Your task to perform on an android device: change the clock display to analog Image 0: 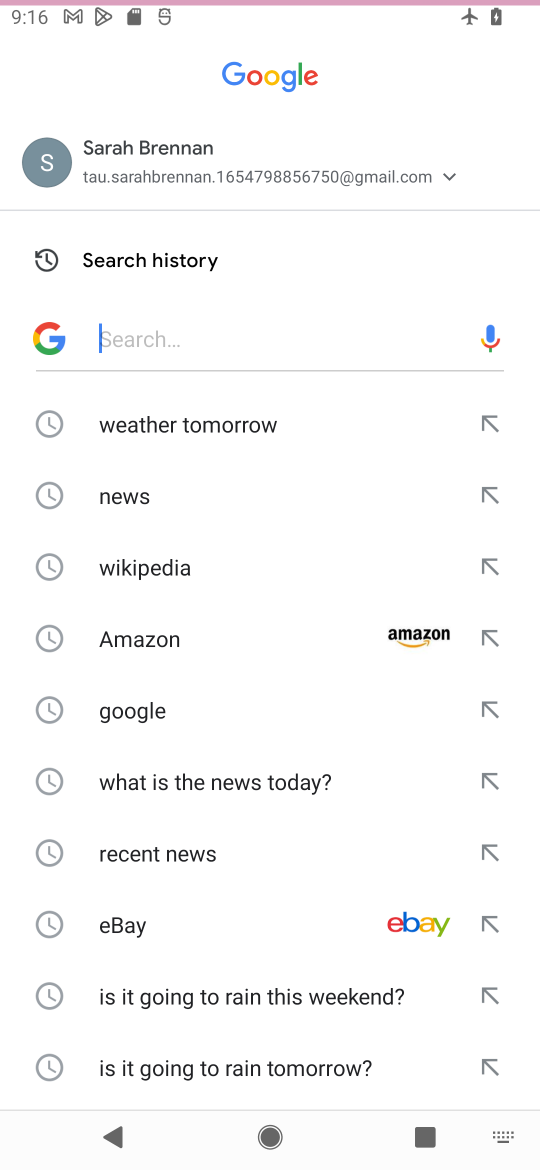
Step 0: press home button
Your task to perform on an android device: change the clock display to analog Image 1: 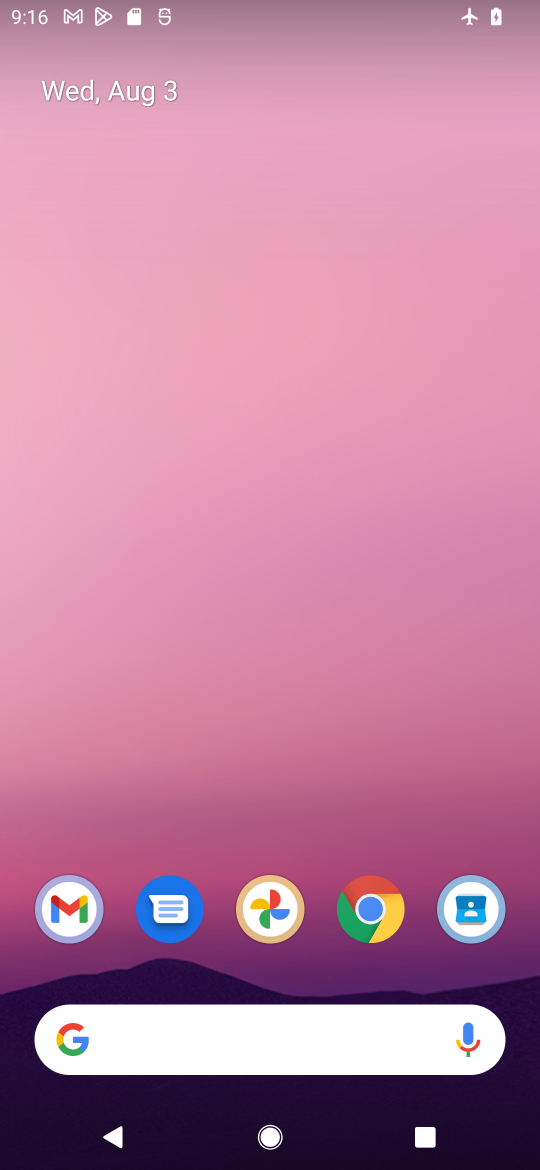
Step 1: drag from (438, 818) to (457, 407)
Your task to perform on an android device: change the clock display to analog Image 2: 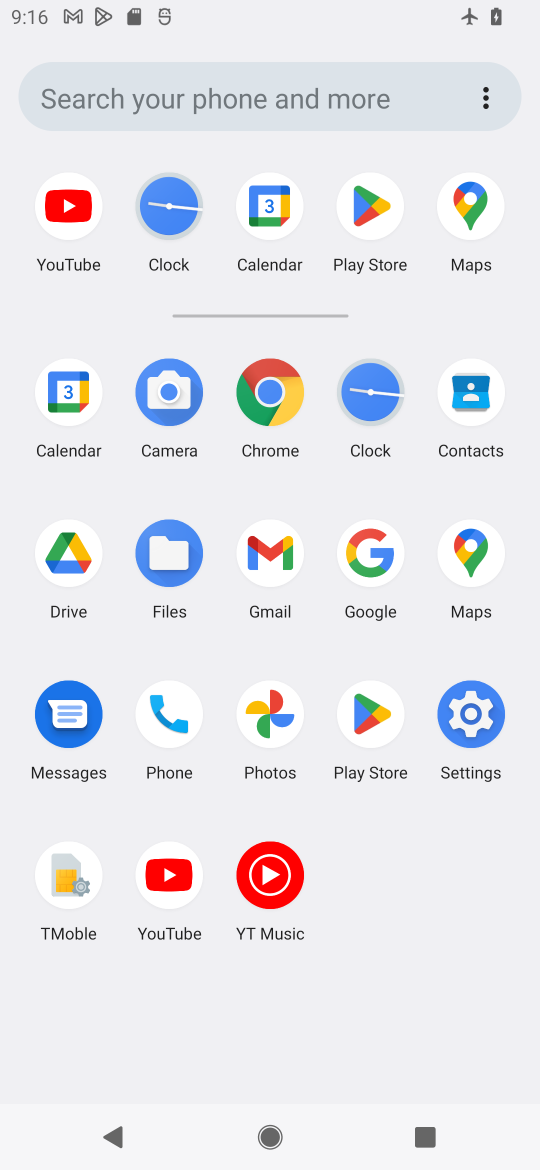
Step 2: click (366, 397)
Your task to perform on an android device: change the clock display to analog Image 3: 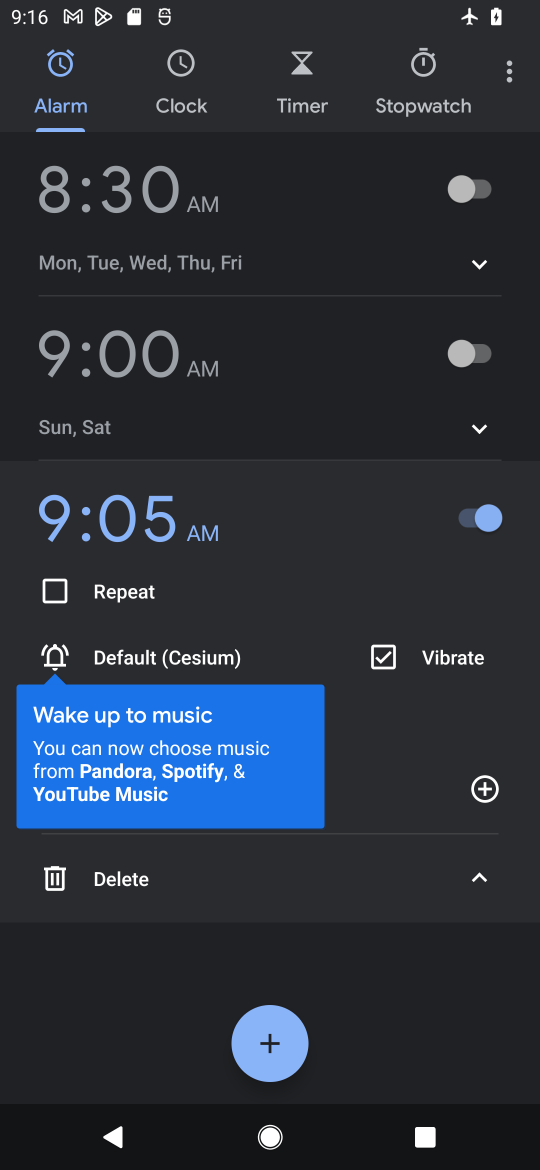
Step 3: click (508, 72)
Your task to perform on an android device: change the clock display to analog Image 4: 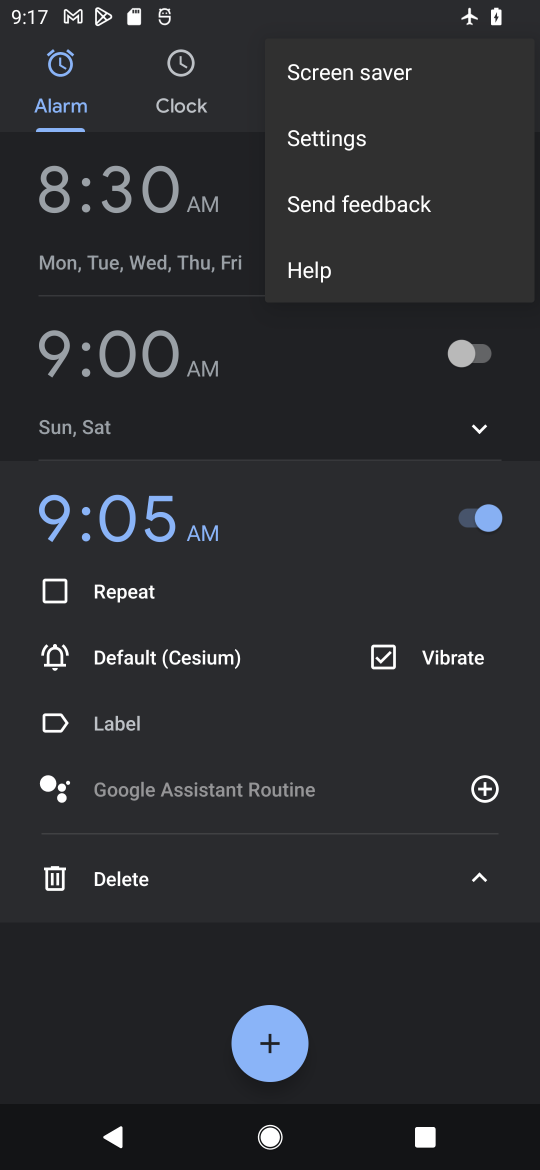
Step 4: click (347, 139)
Your task to perform on an android device: change the clock display to analog Image 5: 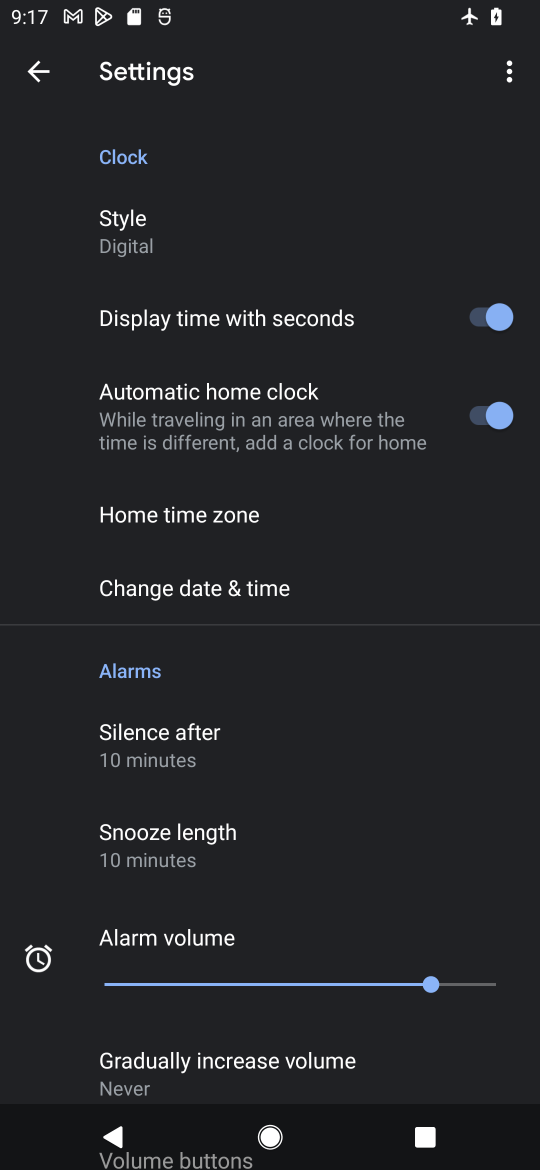
Step 5: drag from (369, 734) to (397, 587)
Your task to perform on an android device: change the clock display to analog Image 6: 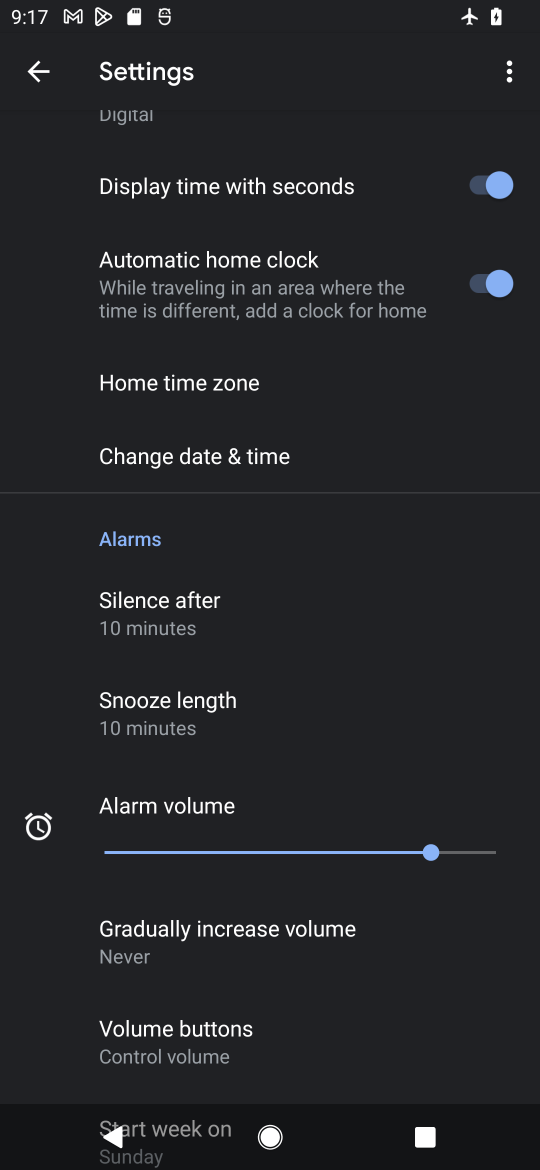
Step 6: drag from (378, 813) to (394, 639)
Your task to perform on an android device: change the clock display to analog Image 7: 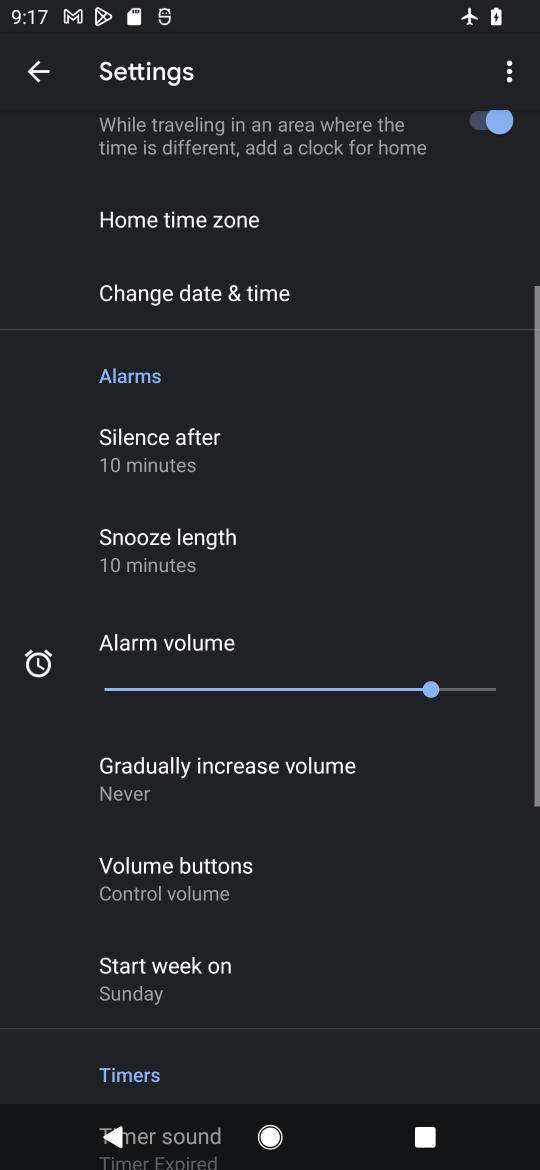
Step 7: drag from (389, 843) to (402, 681)
Your task to perform on an android device: change the clock display to analog Image 8: 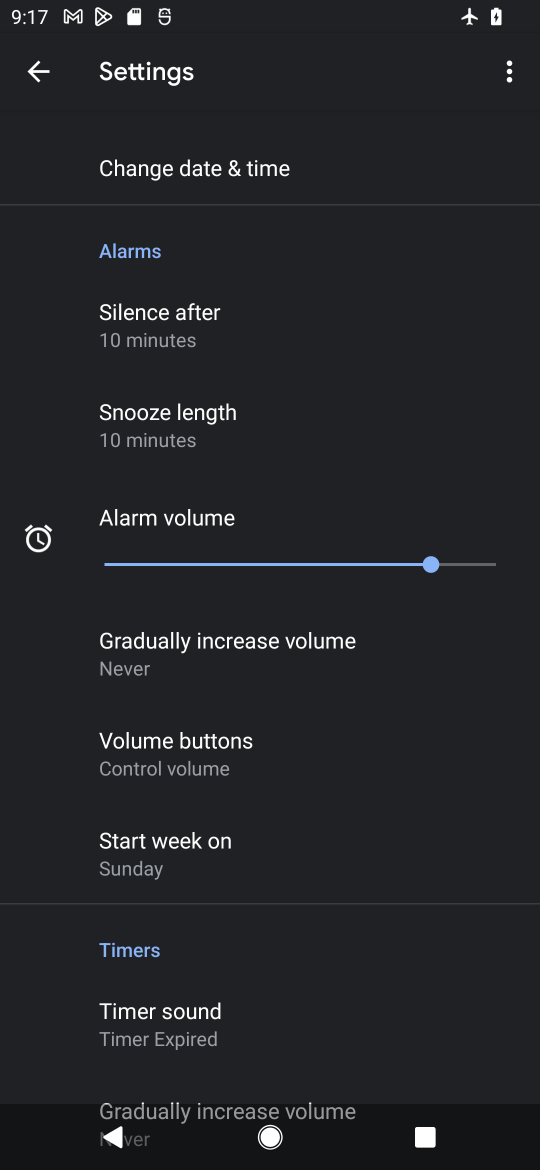
Step 8: drag from (379, 860) to (385, 670)
Your task to perform on an android device: change the clock display to analog Image 9: 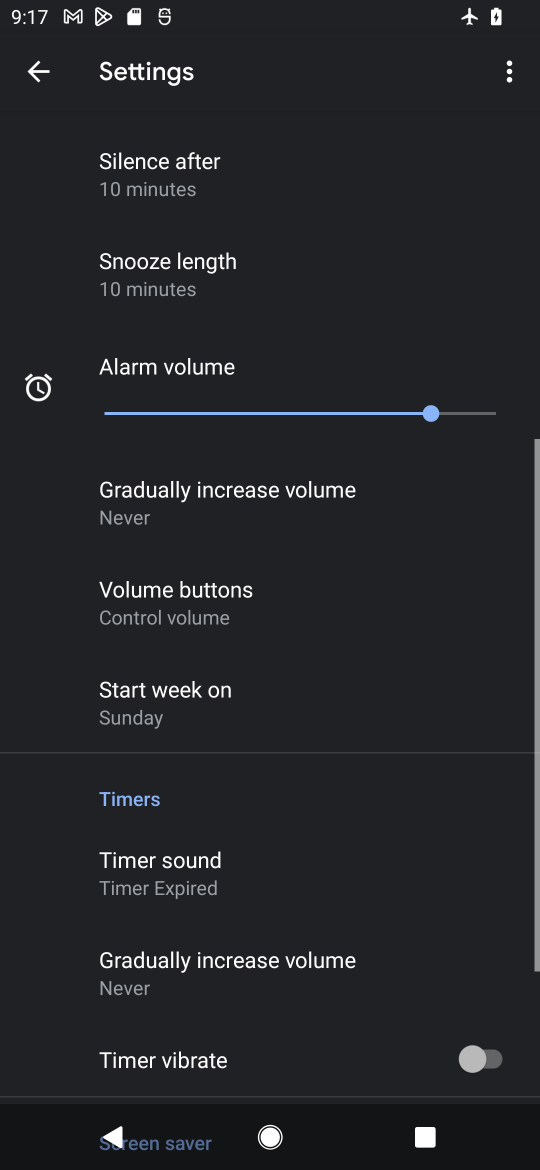
Step 9: drag from (422, 482) to (431, 633)
Your task to perform on an android device: change the clock display to analog Image 10: 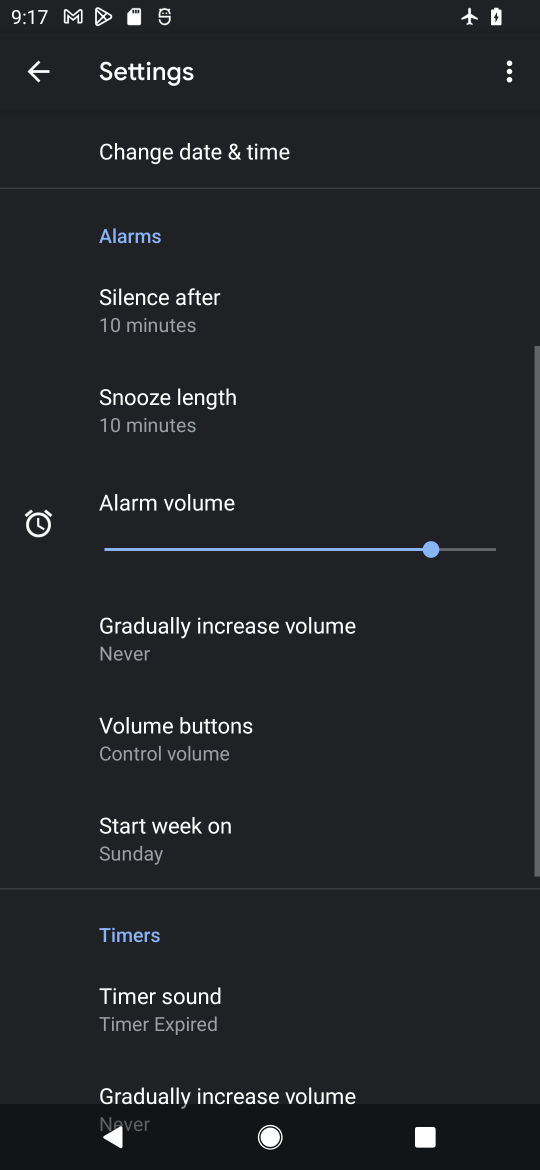
Step 10: drag from (475, 379) to (486, 568)
Your task to perform on an android device: change the clock display to analog Image 11: 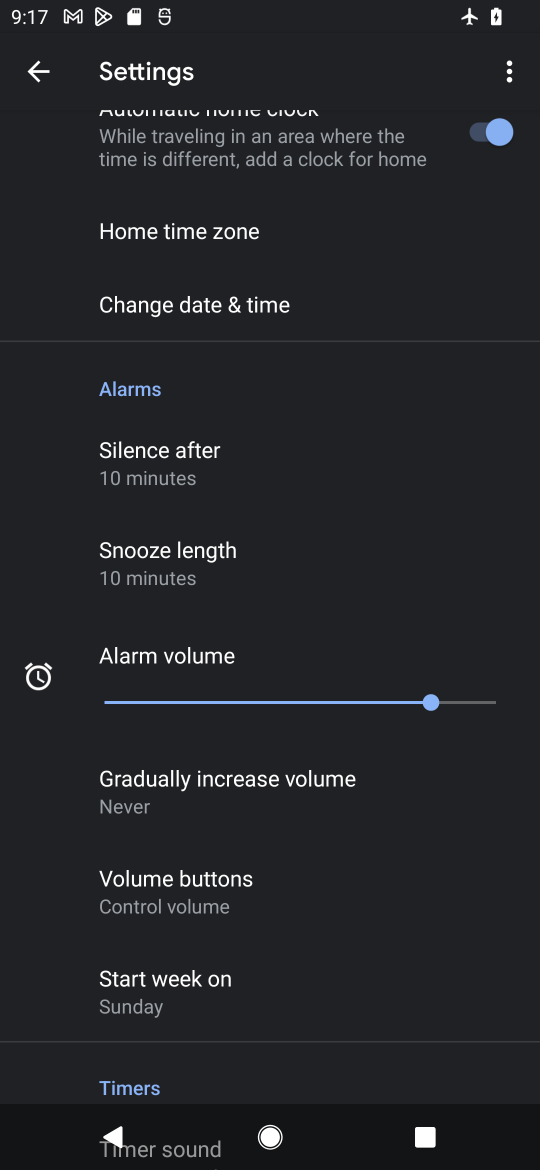
Step 11: drag from (455, 339) to (459, 579)
Your task to perform on an android device: change the clock display to analog Image 12: 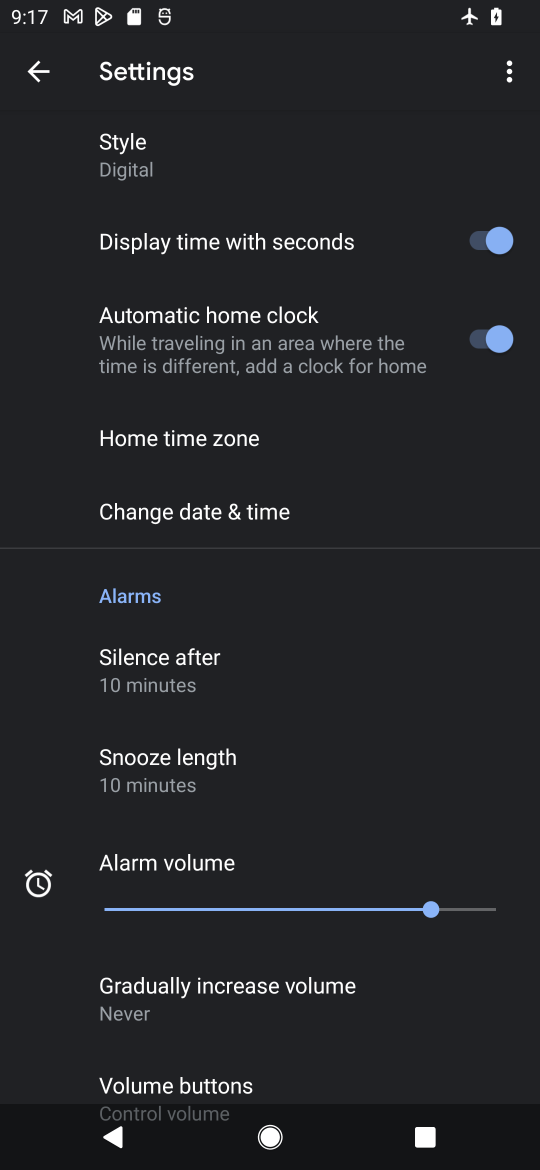
Step 12: drag from (369, 209) to (382, 516)
Your task to perform on an android device: change the clock display to analog Image 13: 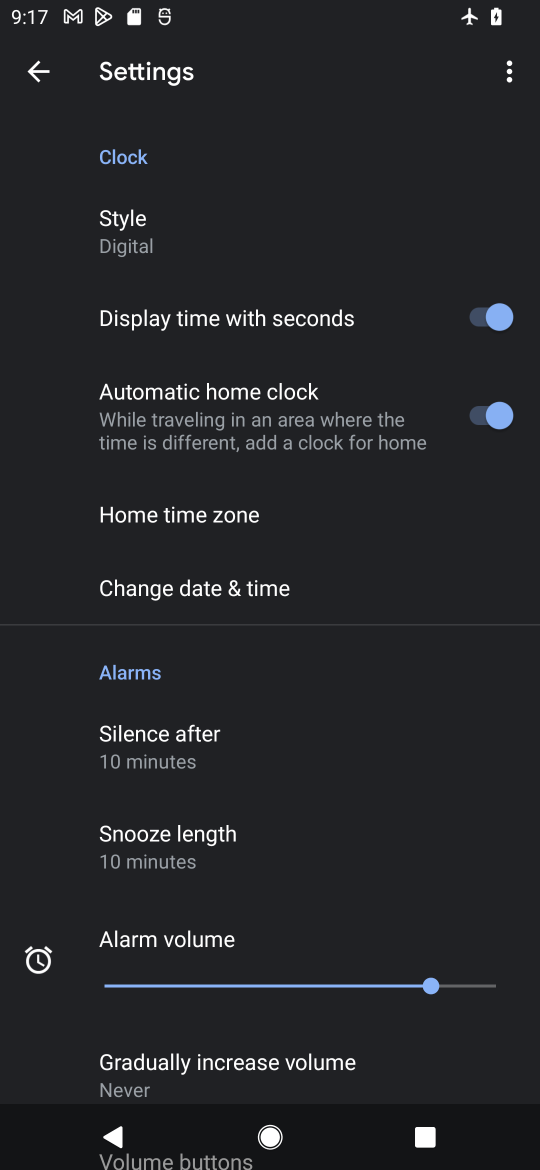
Step 13: click (136, 245)
Your task to perform on an android device: change the clock display to analog Image 14: 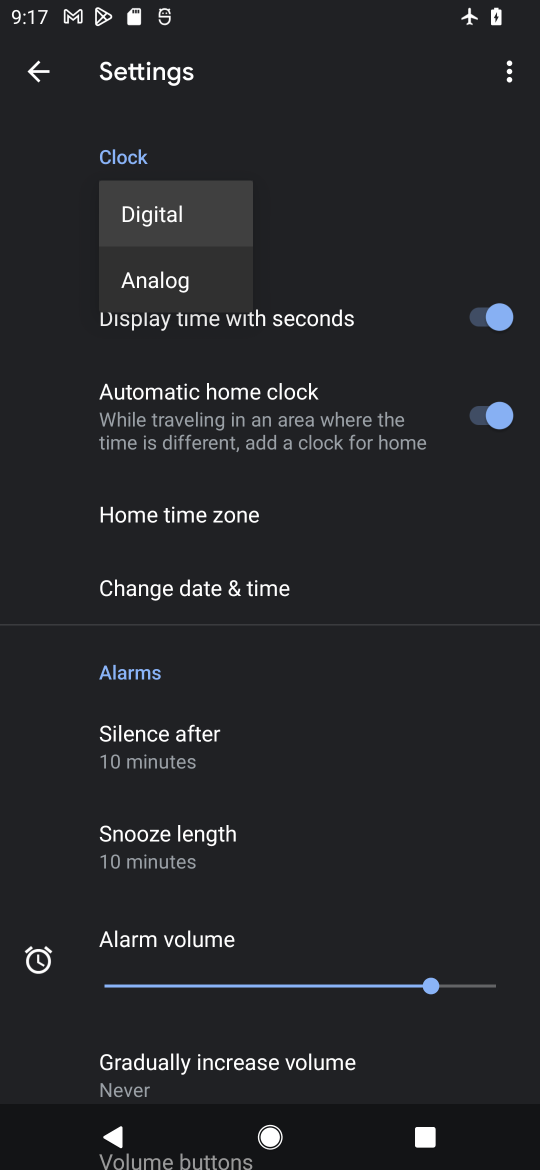
Step 14: click (162, 281)
Your task to perform on an android device: change the clock display to analog Image 15: 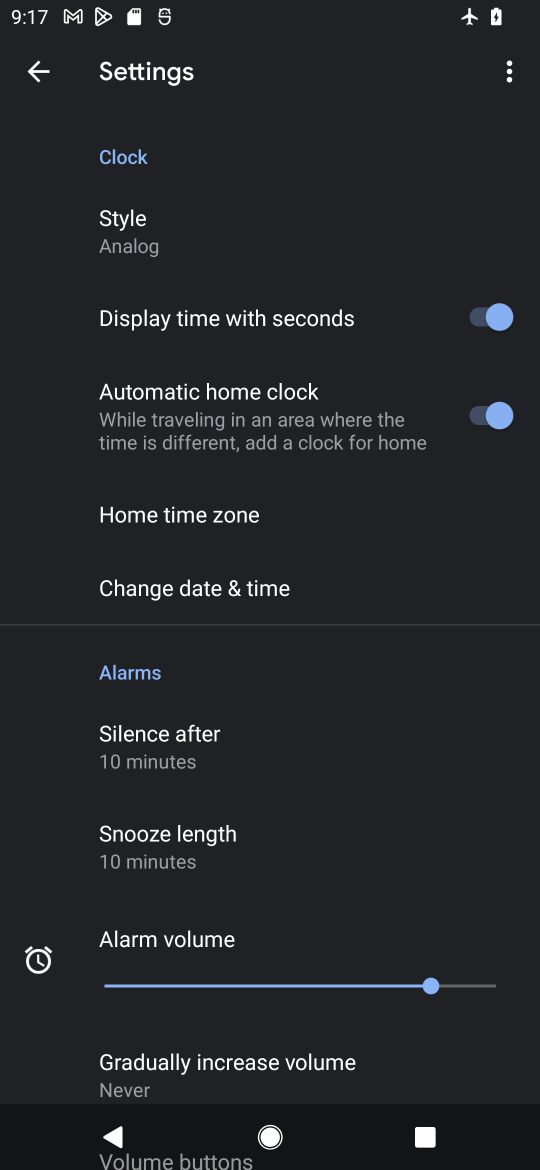
Step 15: task complete